Your task to perform on an android device: Is it going to rain this weekend? Image 0: 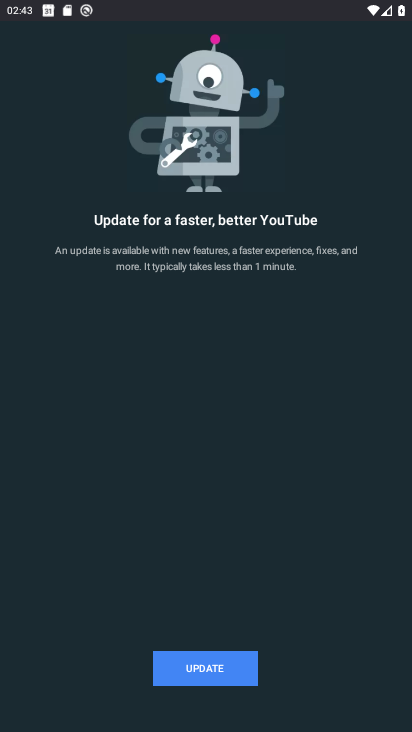
Step 0: press home button
Your task to perform on an android device: Is it going to rain this weekend? Image 1: 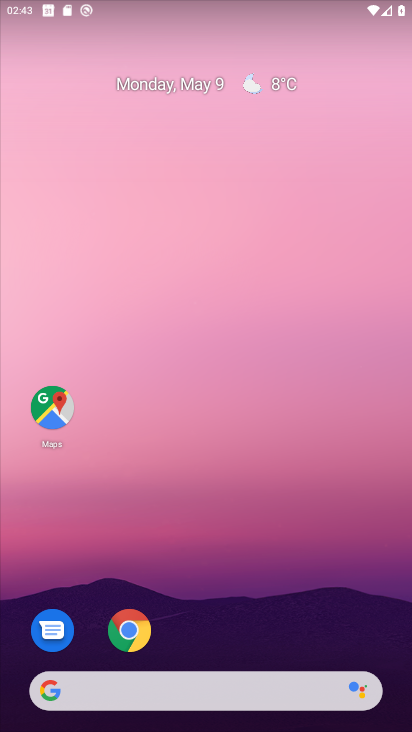
Step 1: click (270, 76)
Your task to perform on an android device: Is it going to rain this weekend? Image 2: 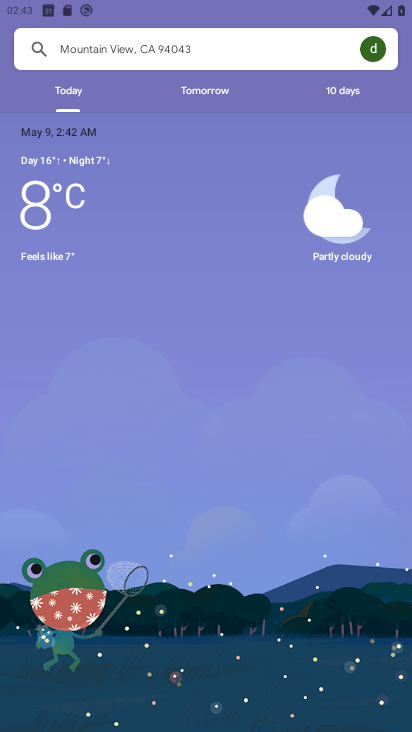
Step 2: click (358, 89)
Your task to perform on an android device: Is it going to rain this weekend? Image 3: 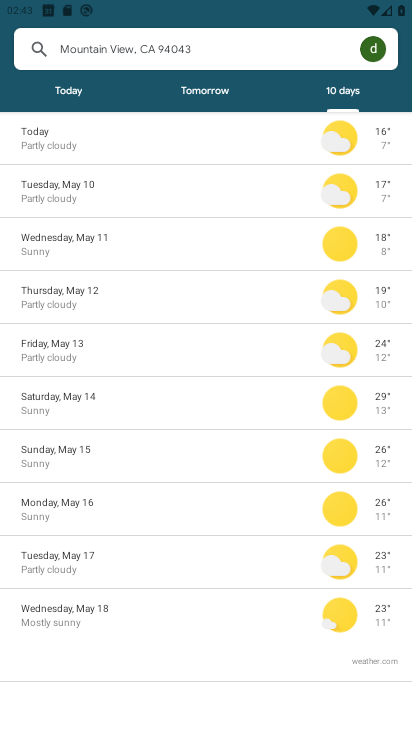
Step 3: task complete